Your task to perform on an android device: read, delete, or share a saved page in the chrome app Image 0: 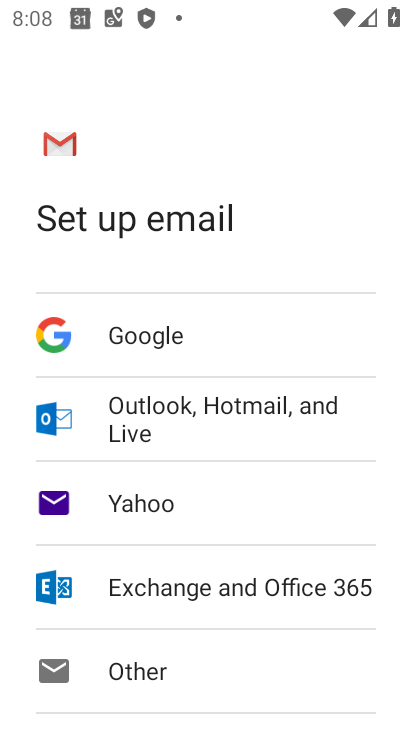
Step 0: press back button
Your task to perform on an android device: read, delete, or share a saved page in the chrome app Image 1: 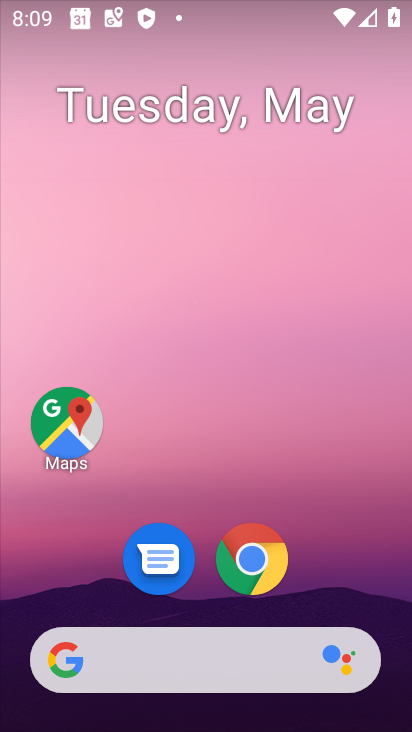
Step 1: click (248, 560)
Your task to perform on an android device: read, delete, or share a saved page in the chrome app Image 2: 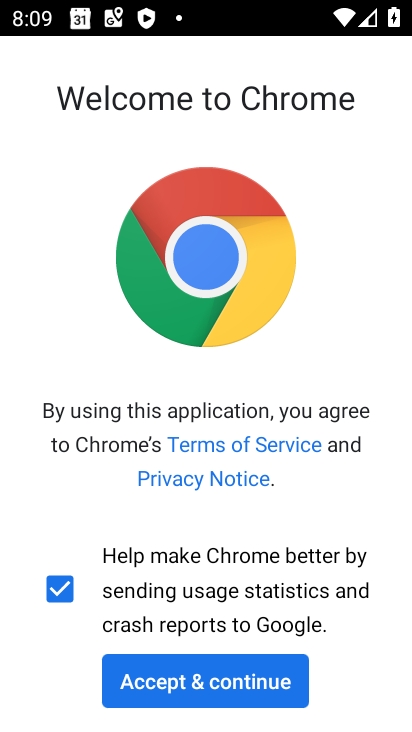
Step 2: click (207, 694)
Your task to perform on an android device: read, delete, or share a saved page in the chrome app Image 3: 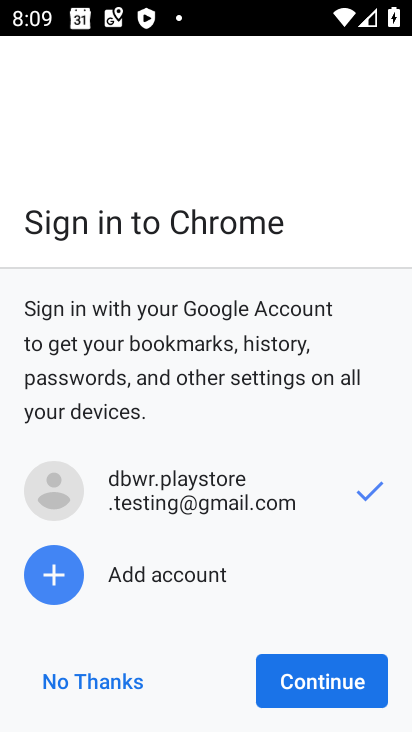
Step 3: click (333, 677)
Your task to perform on an android device: read, delete, or share a saved page in the chrome app Image 4: 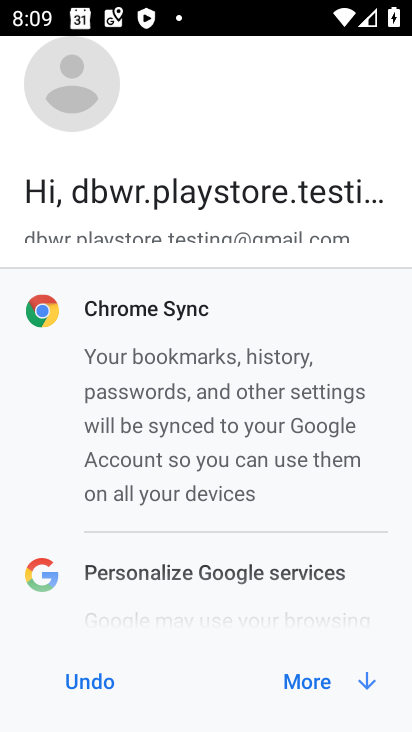
Step 4: click (319, 675)
Your task to perform on an android device: read, delete, or share a saved page in the chrome app Image 5: 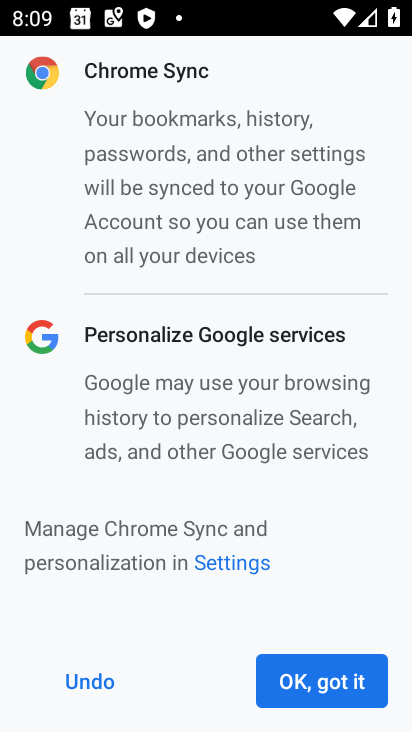
Step 5: click (314, 685)
Your task to perform on an android device: read, delete, or share a saved page in the chrome app Image 6: 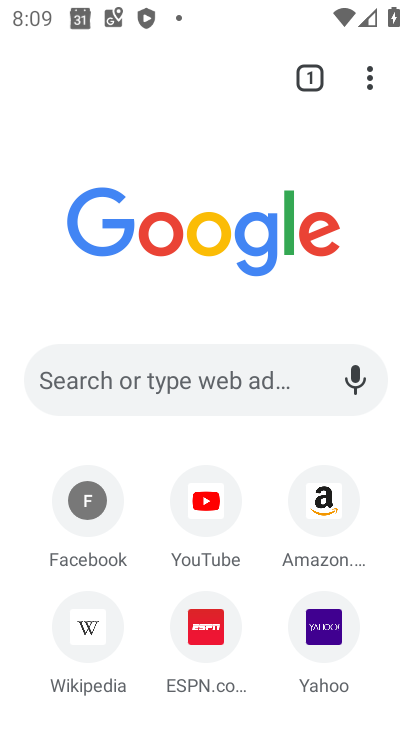
Step 6: drag from (362, 77) to (100, 508)
Your task to perform on an android device: read, delete, or share a saved page in the chrome app Image 7: 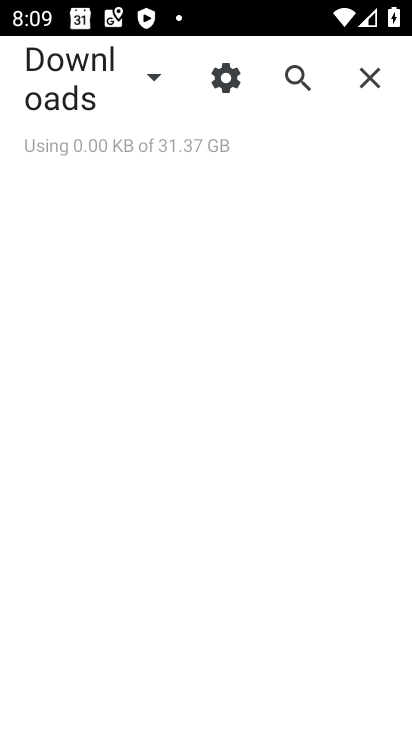
Step 7: click (161, 84)
Your task to perform on an android device: read, delete, or share a saved page in the chrome app Image 8: 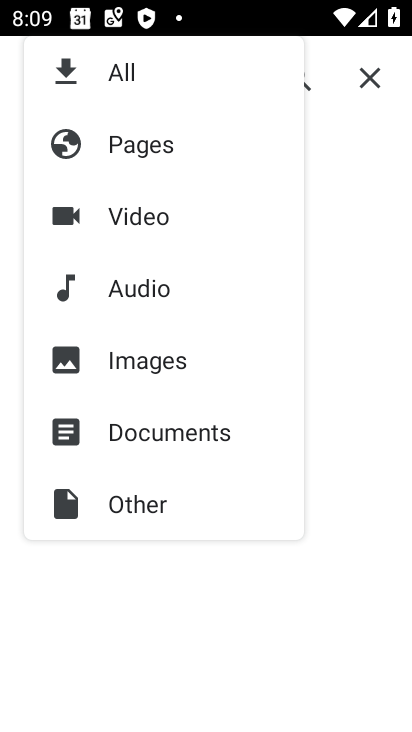
Step 8: click (136, 140)
Your task to perform on an android device: read, delete, or share a saved page in the chrome app Image 9: 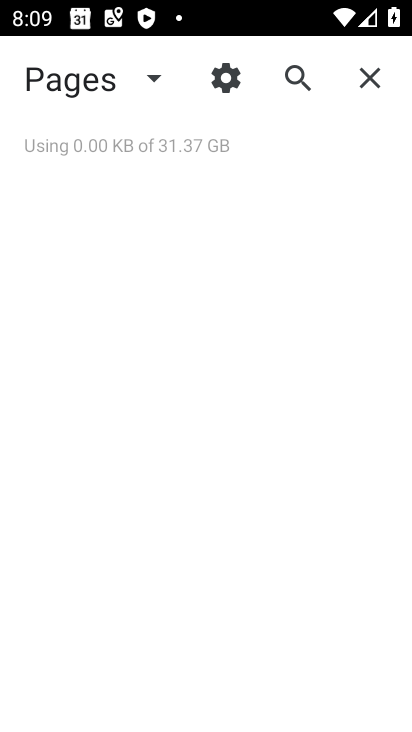
Step 9: task complete